Your task to perform on an android device: open chrome and create a bookmark for the current page Image 0: 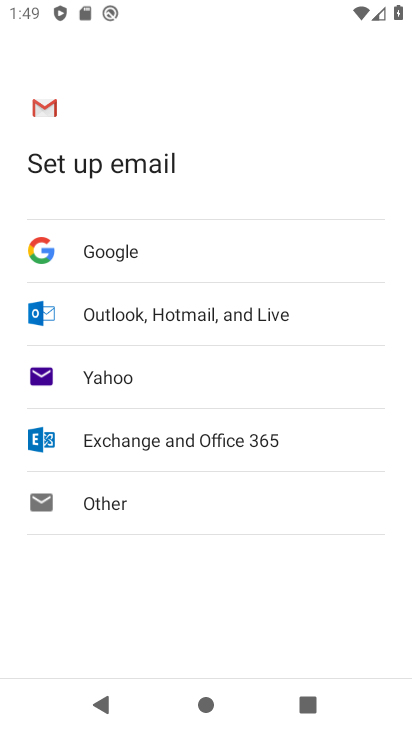
Step 0: press home button
Your task to perform on an android device: open chrome and create a bookmark for the current page Image 1: 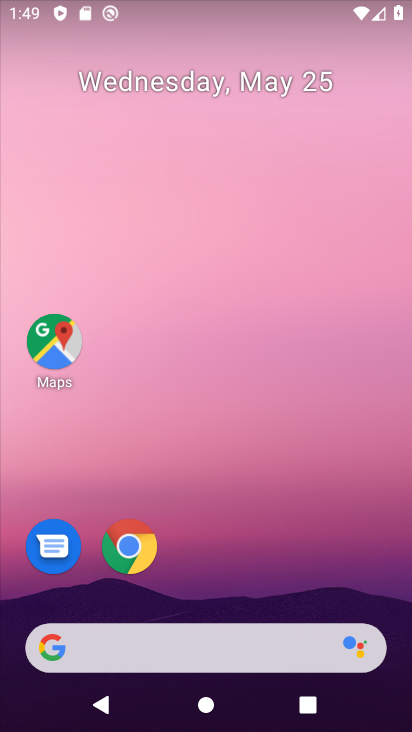
Step 1: click (125, 543)
Your task to perform on an android device: open chrome and create a bookmark for the current page Image 2: 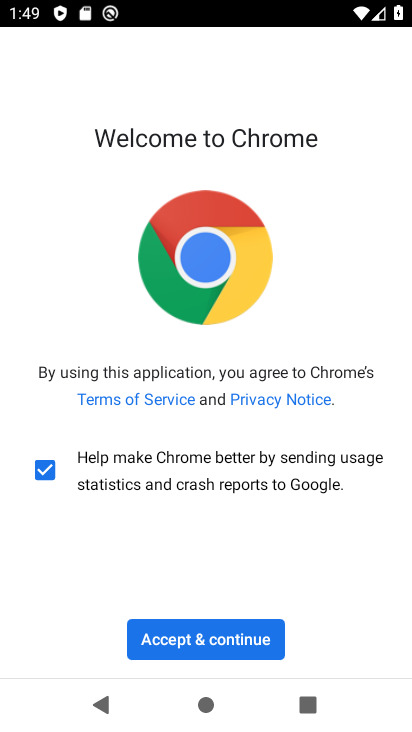
Step 2: click (186, 639)
Your task to perform on an android device: open chrome and create a bookmark for the current page Image 3: 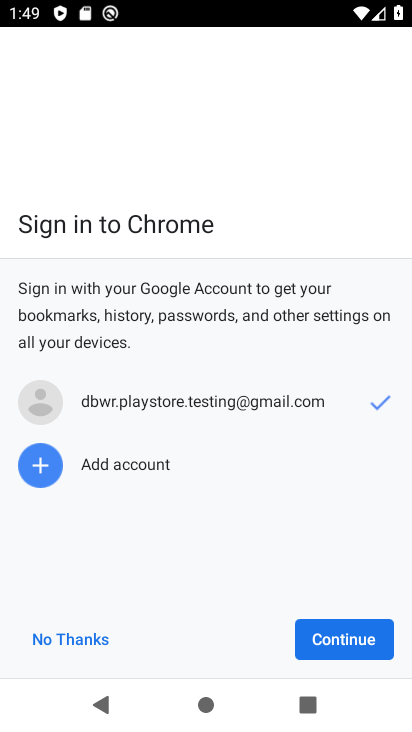
Step 3: click (338, 637)
Your task to perform on an android device: open chrome and create a bookmark for the current page Image 4: 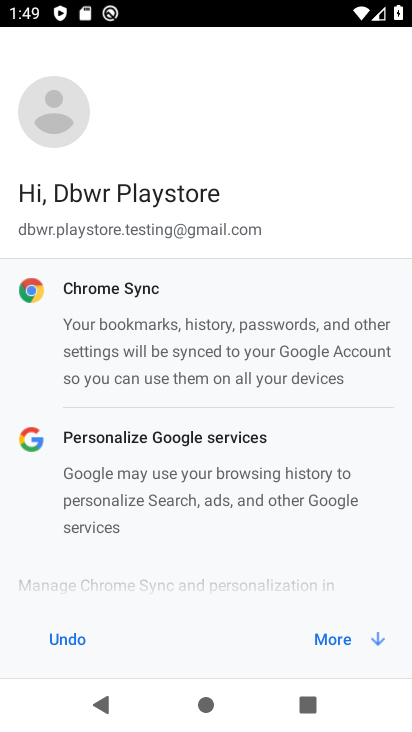
Step 4: click (338, 637)
Your task to perform on an android device: open chrome and create a bookmark for the current page Image 5: 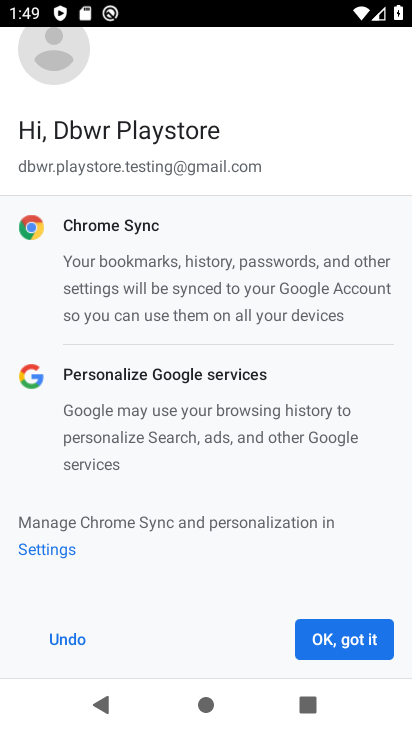
Step 5: click (338, 637)
Your task to perform on an android device: open chrome and create a bookmark for the current page Image 6: 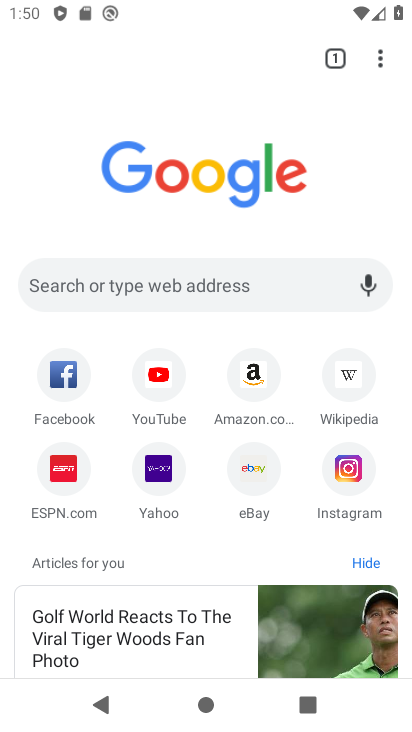
Step 6: click (381, 59)
Your task to perform on an android device: open chrome and create a bookmark for the current page Image 7: 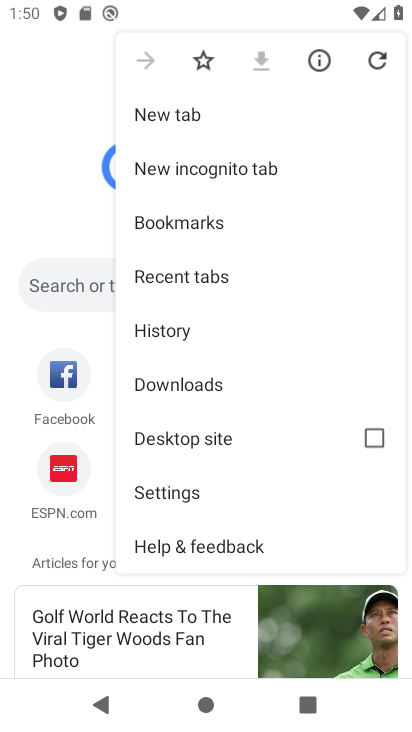
Step 7: click (205, 59)
Your task to perform on an android device: open chrome and create a bookmark for the current page Image 8: 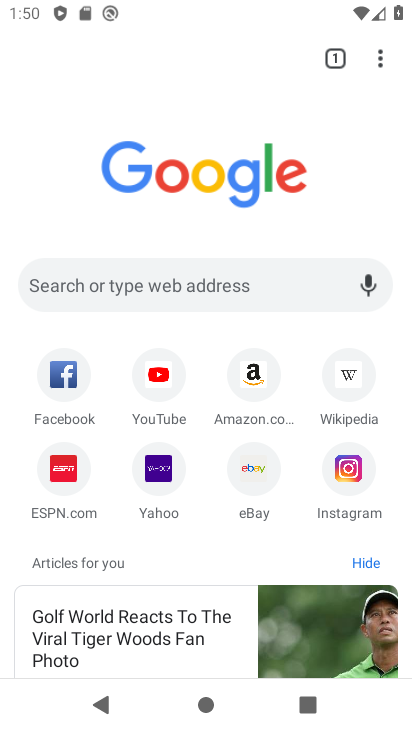
Step 8: task complete